Your task to perform on an android device: change the clock style Image 0: 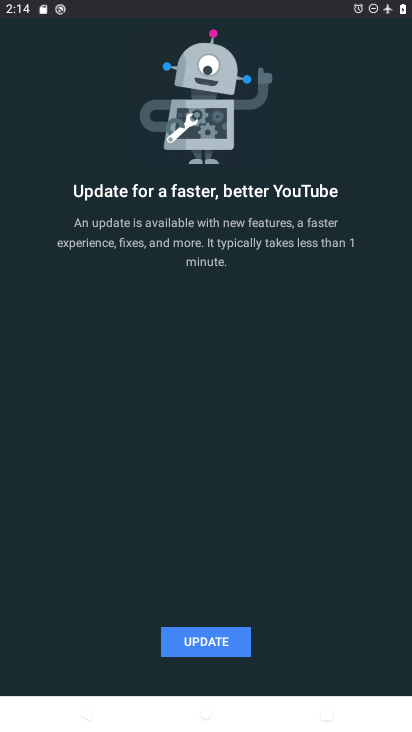
Step 0: press home button
Your task to perform on an android device: change the clock style Image 1: 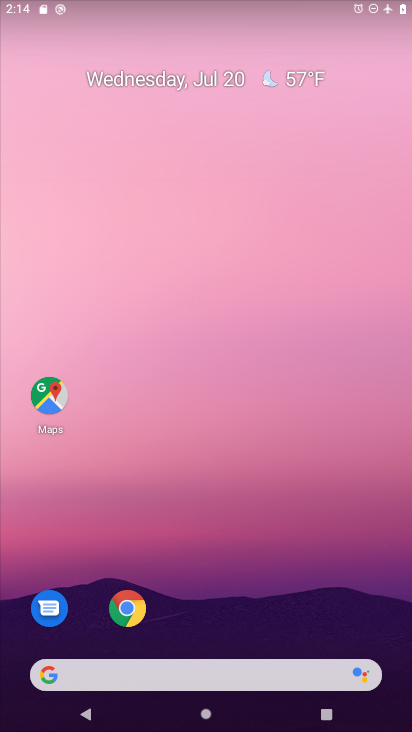
Step 1: drag from (268, 682) to (305, 173)
Your task to perform on an android device: change the clock style Image 2: 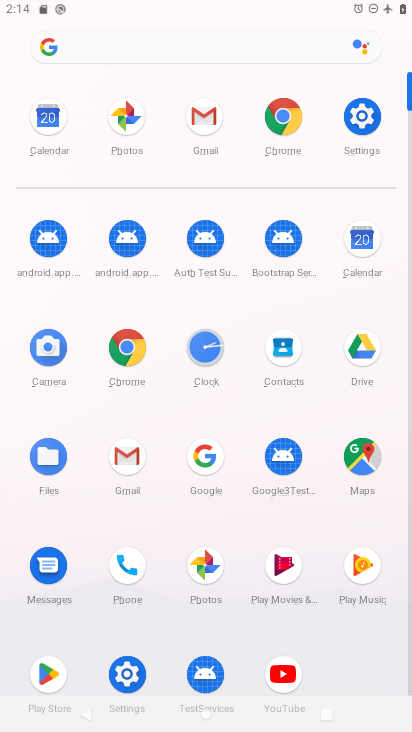
Step 2: click (199, 348)
Your task to perform on an android device: change the clock style Image 3: 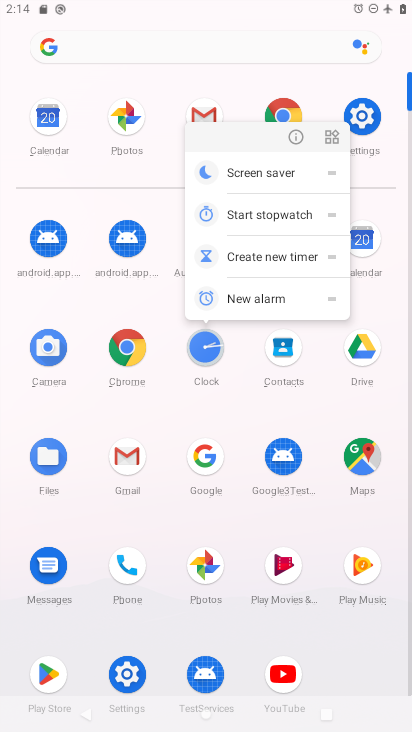
Step 3: click (199, 348)
Your task to perform on an android device: change the clock style Image 4: 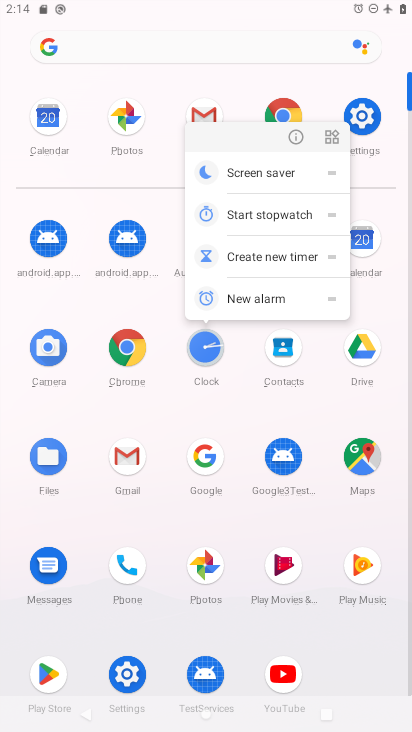
Step 4: click (199, 348)
Your task to perform on an android device: change the clock style Image 5: 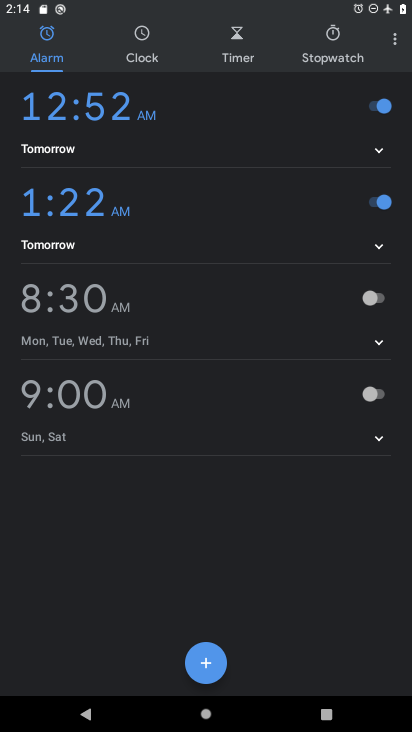
Step 5: click (390, 39)
Your task to perform on an android device: change the clock style Image 6: 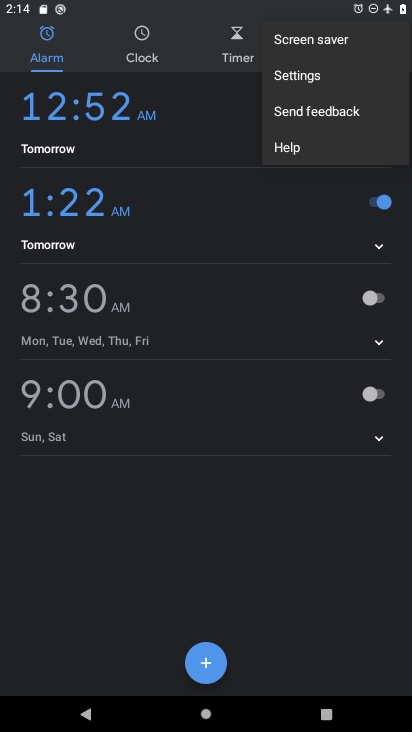
Step 6: click (341, 75)
Your task to perform on an android device: change the clock style Image 7: 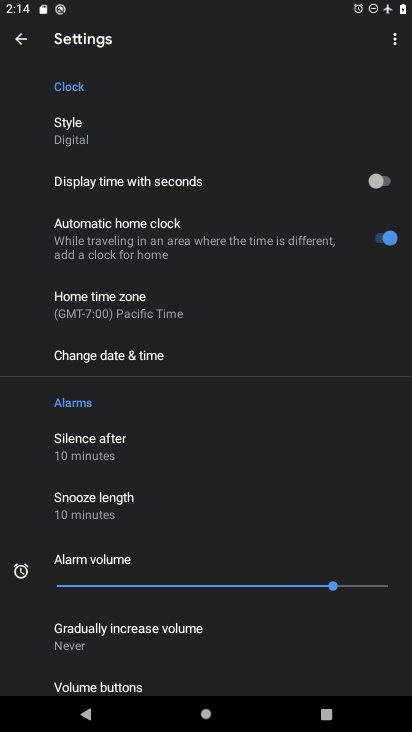
Step 7: click (110, 119)
Your task to perform on an android device: change the clock style Image 8: 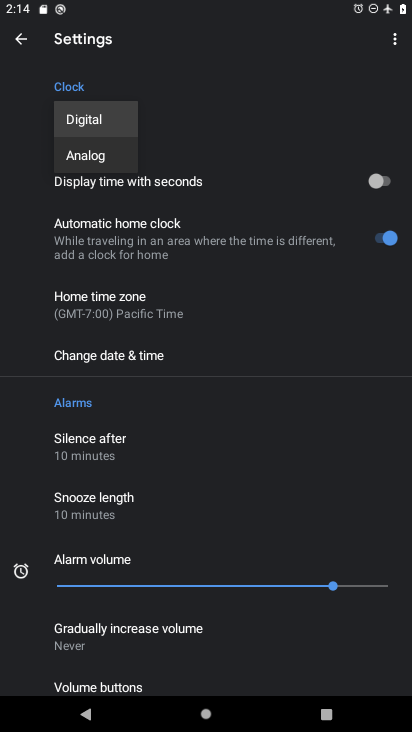
Step 8: click (102, 148)
Your task to perform on an android device: change the clock style Image 9: 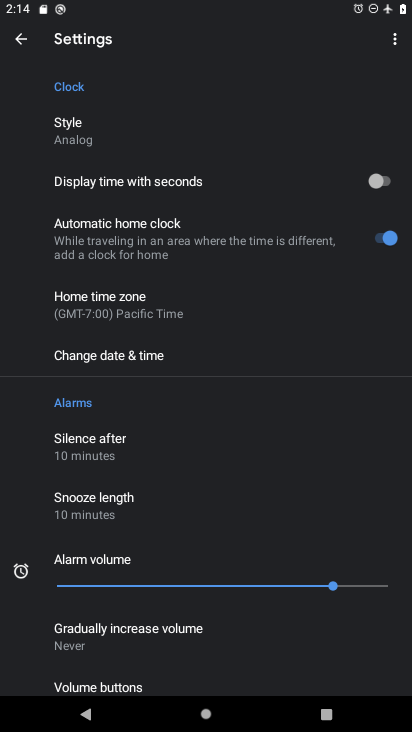
Step 9: task complete